Your task to perform on an android device: Open notification settings Image 0: 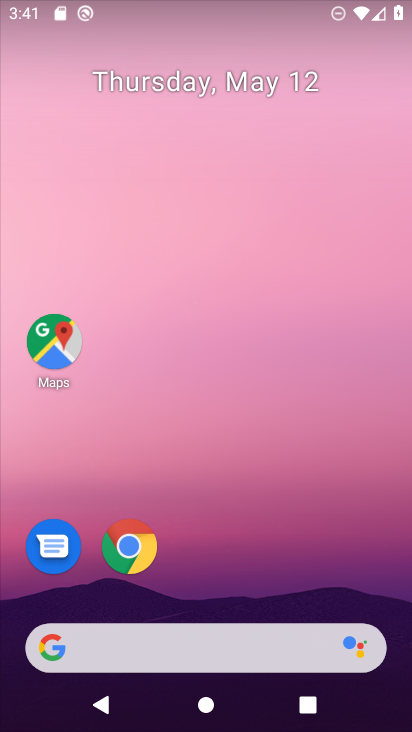
Step 0: drag from (264, 543) to (288, 98)
Your task to perform on an android device: Open notification settings Image 1: 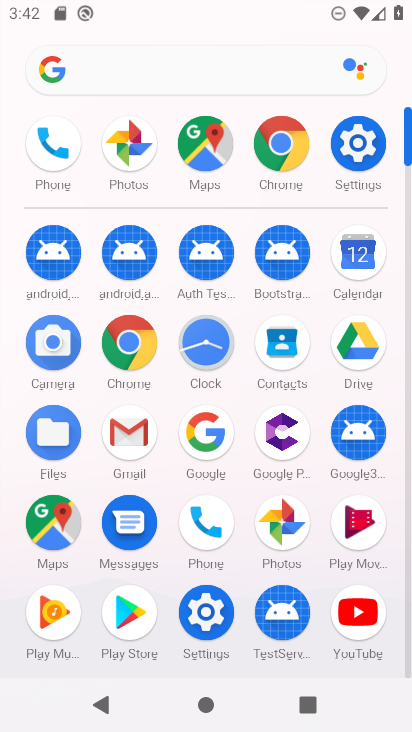
Step 1: click (353, 140)
Your task to perform on an android device: Open notification settings Image 2: 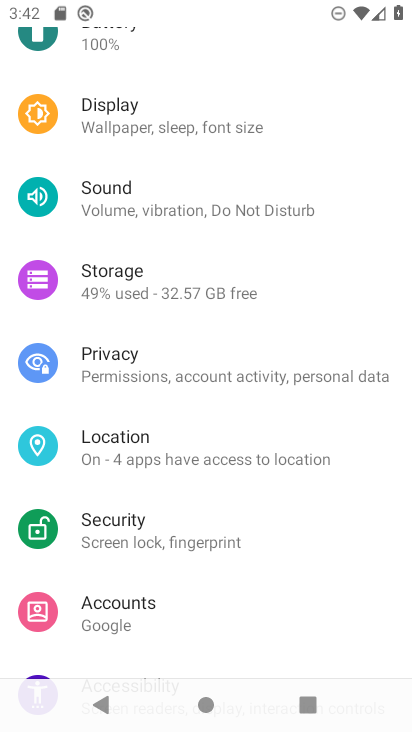
Step 2: drag from (154, 142) to (164, 581)
Your task to perform on an android device: Open notification settings Image 3: 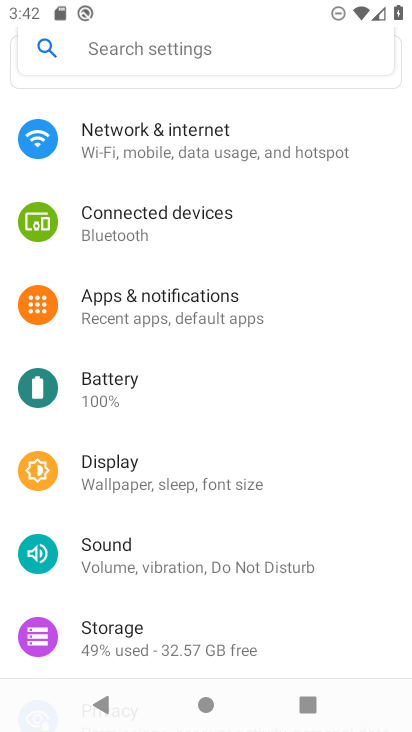
Step 3: click (142, 306)
Your task to perform on an android device: Open notification settings Image 4: 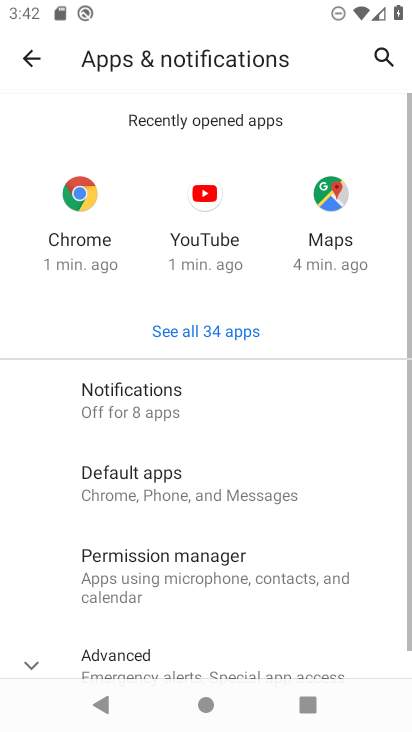
Step 4: click (175, 391)
Your task to perform on an android device: Open notification settings Image 5: 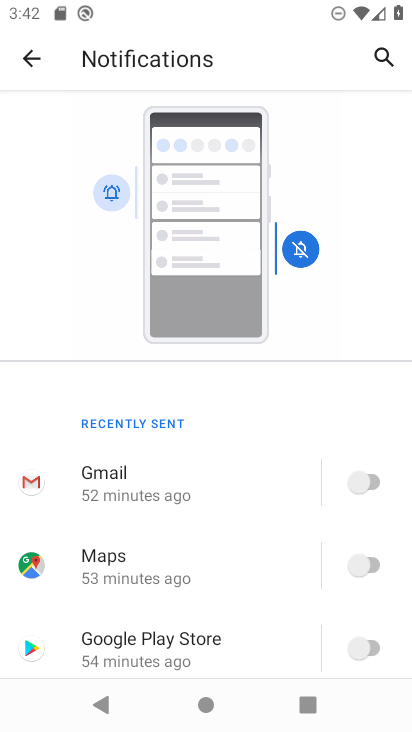
Step 5: task complete